Your task to perform on an android device: Go to internet settings Image 0: 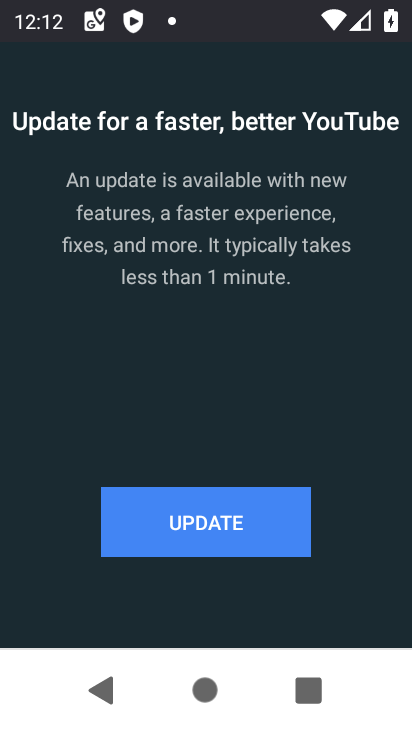
Step 0: press home button
Your task to perform on an android device: Go to internet settings Image 1: 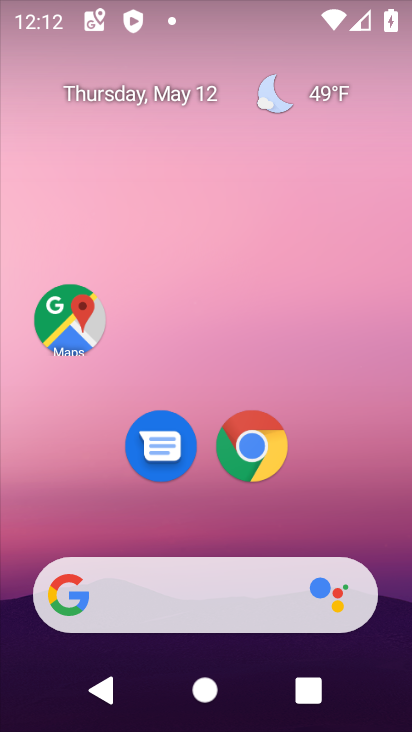
Step 1: drag from (292, 491) to (290, 125)
Your task to perform on an android device: Go to internet settings Image 2: 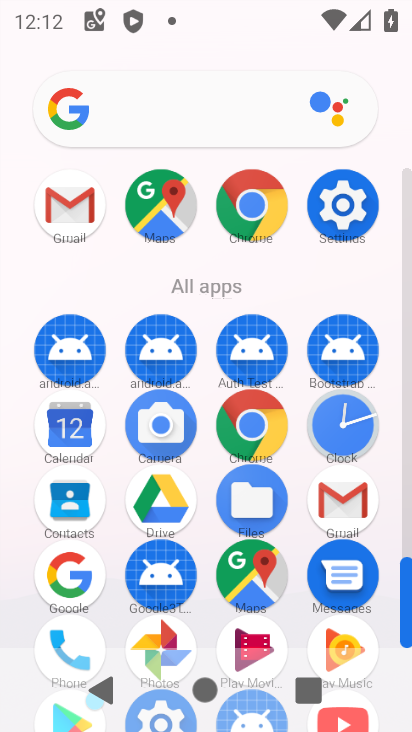
Step 2: click (332, 211)
Your task to perform on an android device: Go to internet settings Image 3: 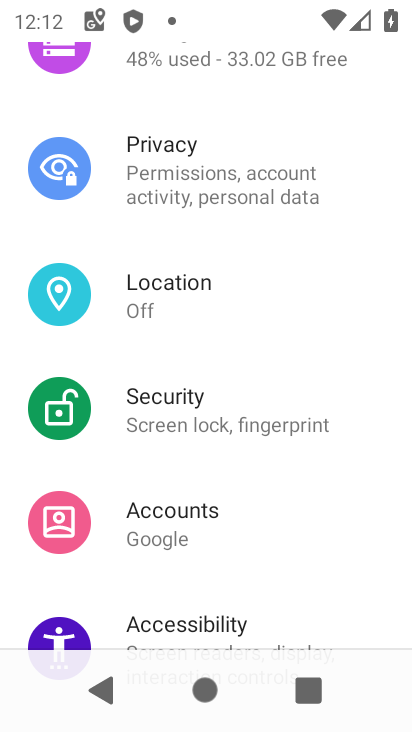
Step 3: drag from (279, 168) to (286, 520)
Your task to perform on an android device: Go to internet settings Image 4: 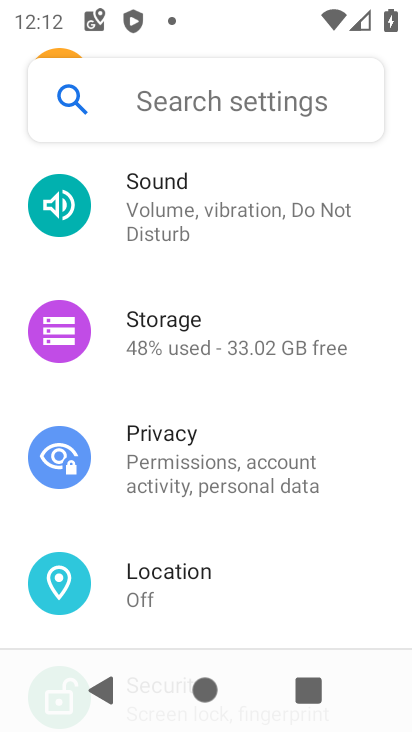
Step 4: drag from (255, 218) to (253, 603)
Your task to perform on an android device: Go to internet settings Image 5: 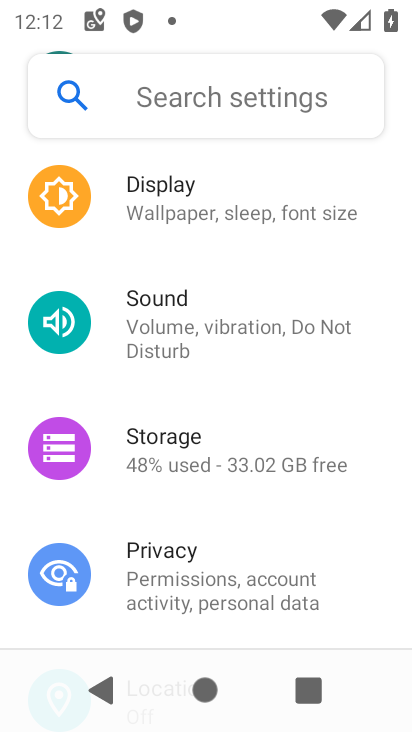
Step 5: drag from (232, 209) to (209, 707)
Your task to perform on an android device: Go to internet settings Image 6: 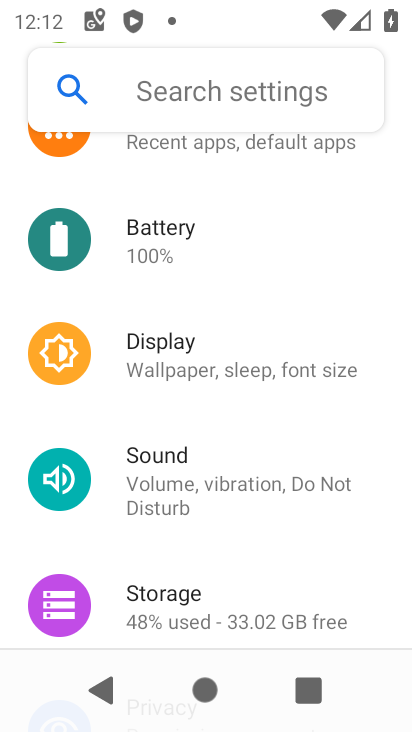
Step 6: drag from (193, 183) to (195, 730)
Your task to perform on an android device: Go to internet settings Image 7: 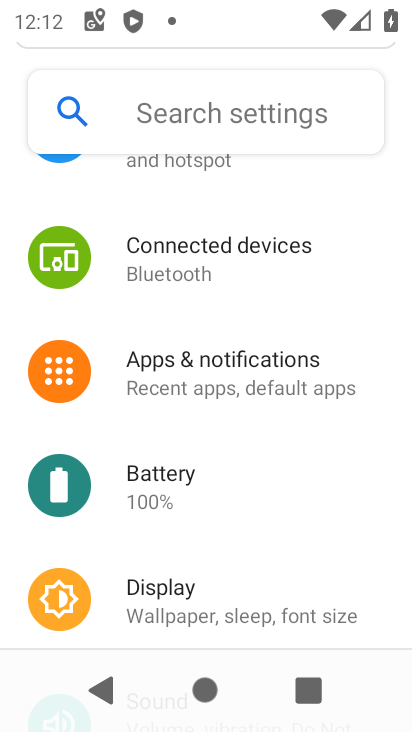
Step 7: drag from (243, 188) to (247, 711)
Your task to perform on an android device: Go to internet settings Image 8: 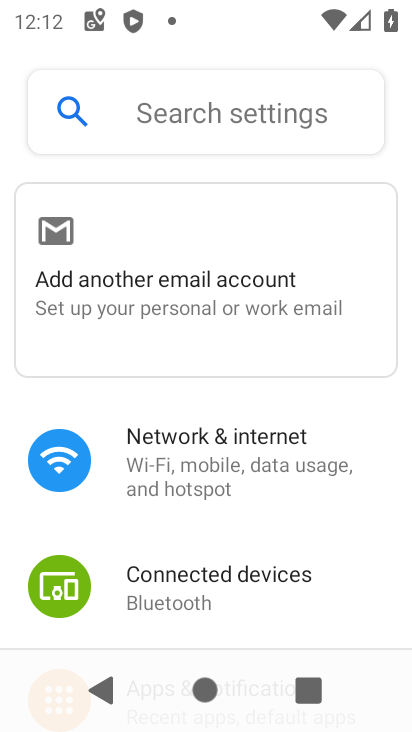
Step 8: click (165, 450)
Your task to perform on an android device: Go to internet settings Image 9: 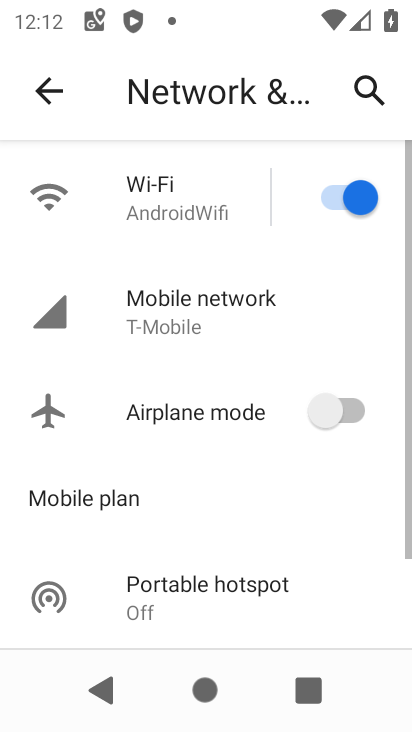
Step 9: task complete